Your task to perform on an android device: open device folders in google photos Image 0: 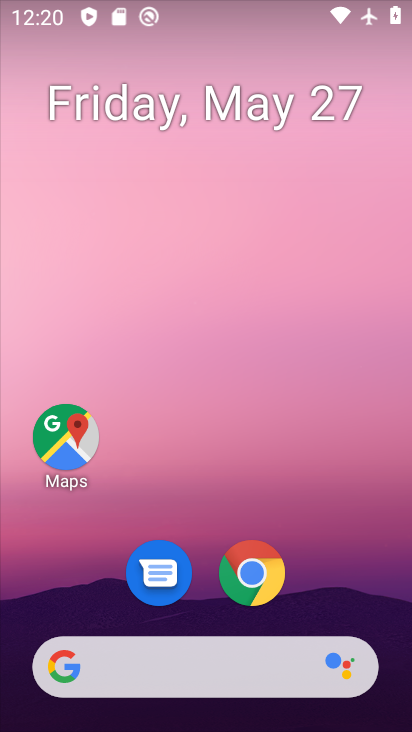
Step 0: drag from (362, 577) to (392, 157)
Your task to perform on an android device: open device folders in google photos Image 1: 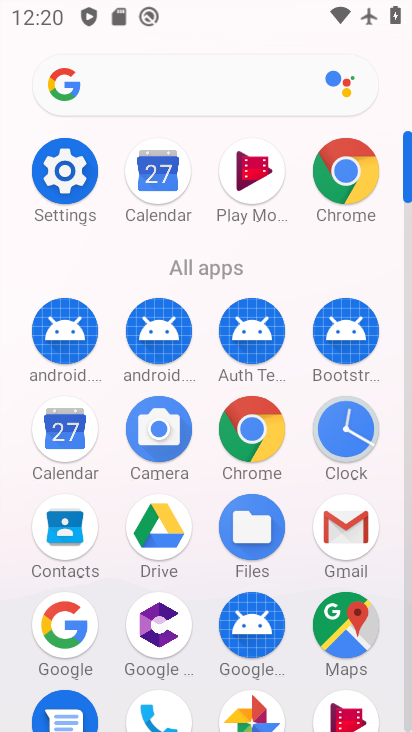
Step 1: click (258, 707)
Your task to perform on an android device: open device folders in google photos Image 2: 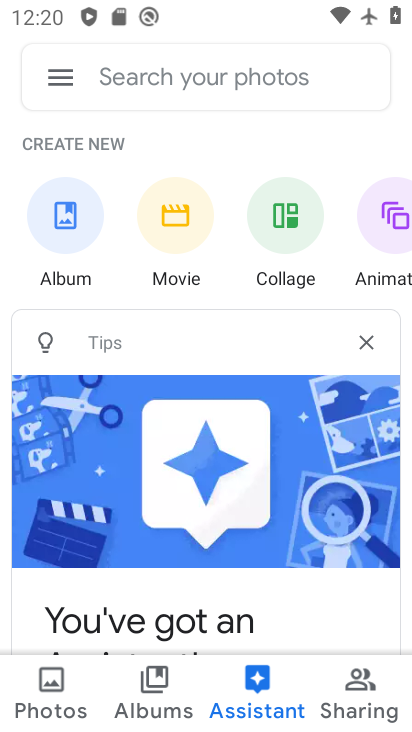
Step 2: click (45, 85)
Your task to perform on an android device: open device folders in google photos Image 3: 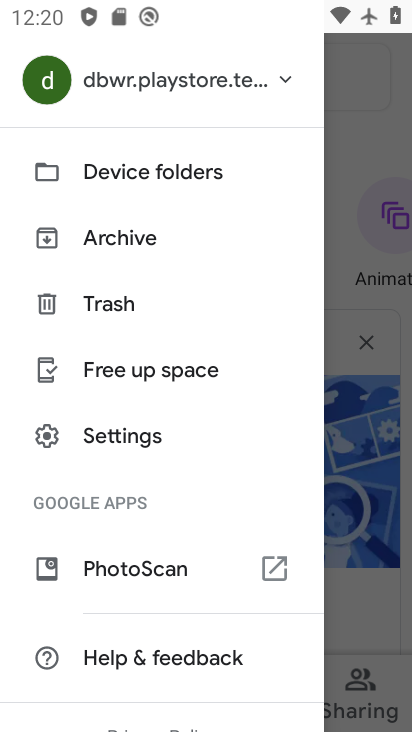
Step 3: click (99, 174)
Your task to perform on an android device: open device folders in google photos Image 4: 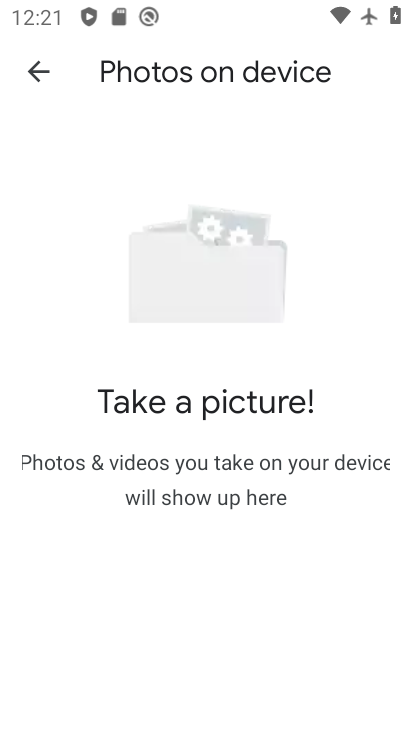
Step 4: task complete